Your task to perform on an android device: Open Android settings Image 0: 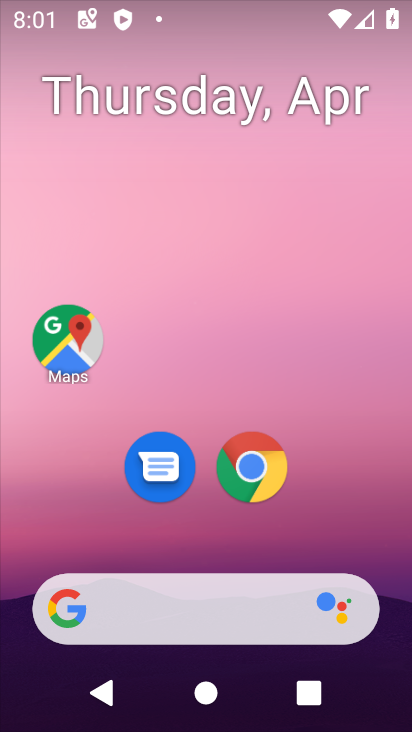
Step 0: drag from (268, 594) to (188, 19)
Your task to perform on an android device: Open Android settings Image 1: 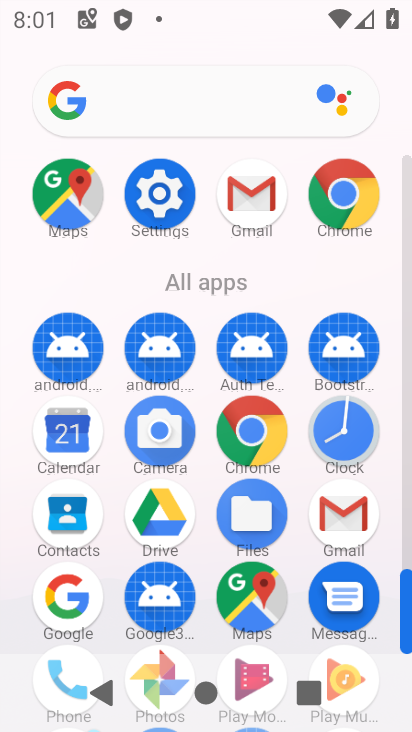
Step 1: click (144, 206)
Your task to perform on an android device: Open Android settings Image 2: 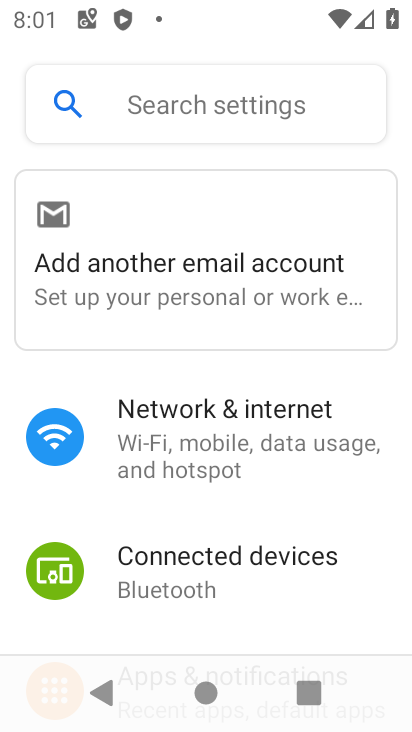
Step 2: drag from (197, 579) to (232, 24)
Your task to perform on an android device: Open Android settings Image 3: 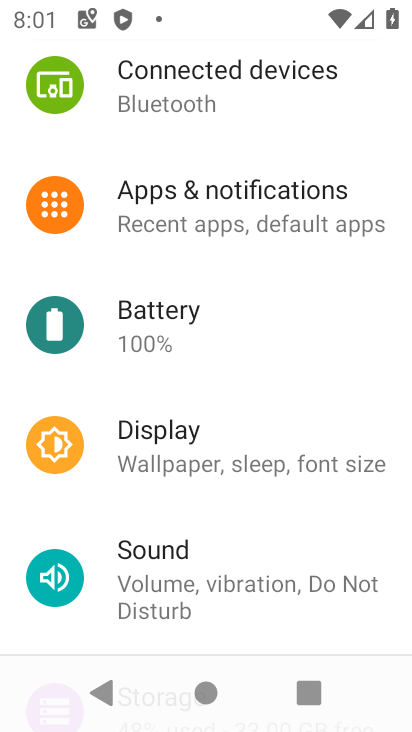
Step 3: drag from (182, 546) to (176, 2)
Your task to perform on an android device: Open Android settings Image 4: 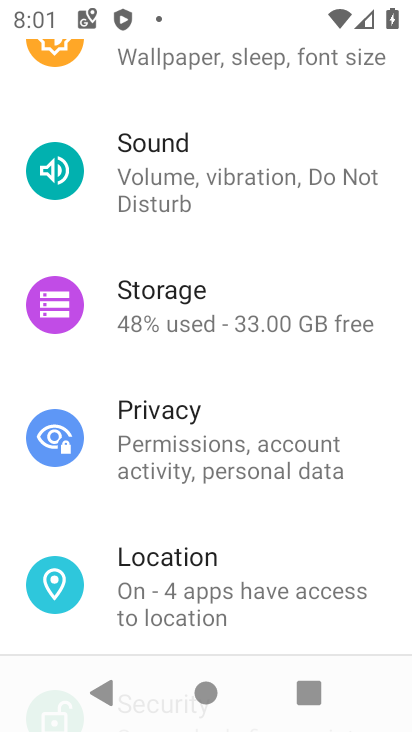
Step 4: drag from (261, 530) to (294, 68)
Your task to perform on an android device: Open Android settings Image 5: 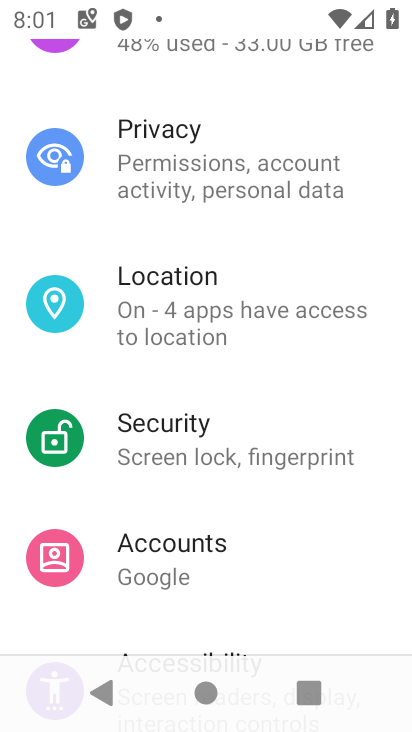
Step 5: drag from (243, 528) to (104, 56)
Your task to perform on an android device: Open Android settings Image 6: 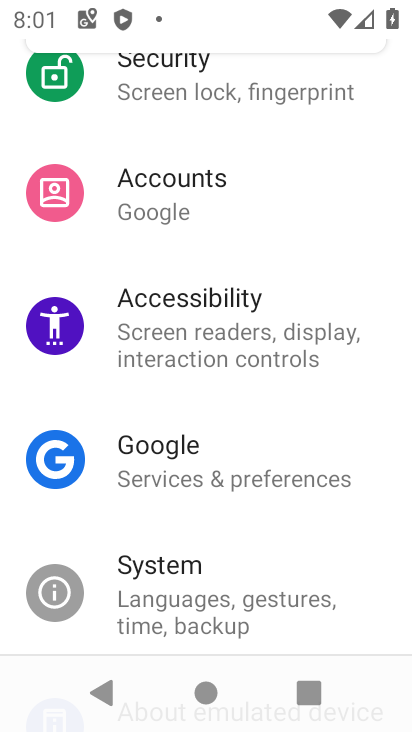
Step 6: drag from (198, 556) to (277, 42)
Your task to perform on an android device: Open Android settings Image 7: 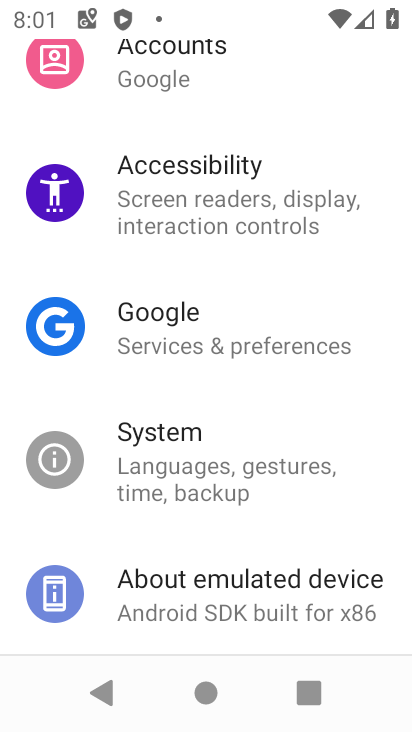
Step 7: drag from (221, 534) to (222, 106)
Your task to perform on an android device: Open Android settings Image 8: 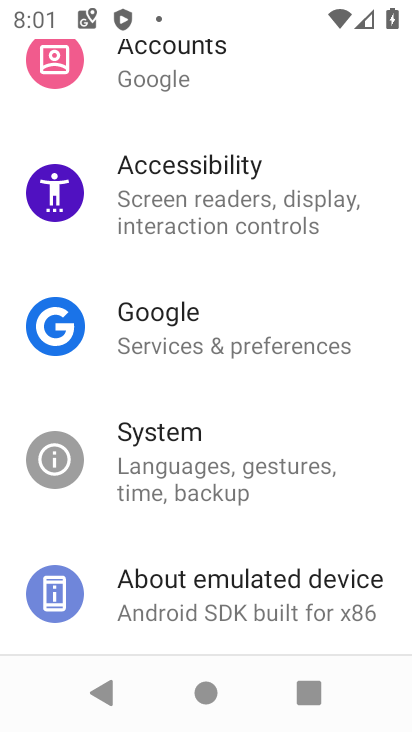
Step 8: click (215, 568)
Your task to perform on an android device: Open Android settings Image 9: 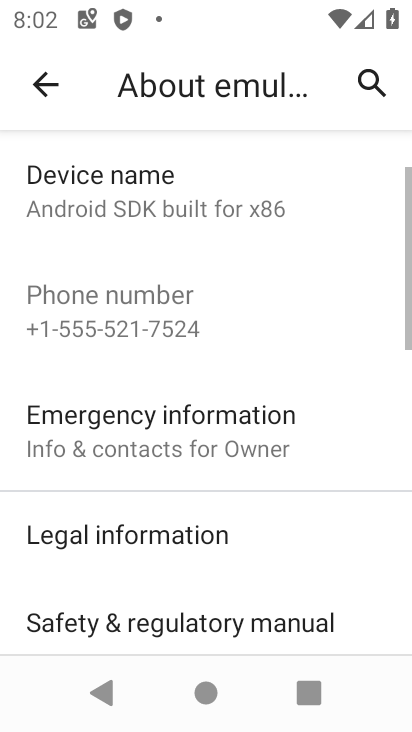
Step 9: task complete